Your task to perform on an android device: open chrome and create a bookmark for the current page Image 0: 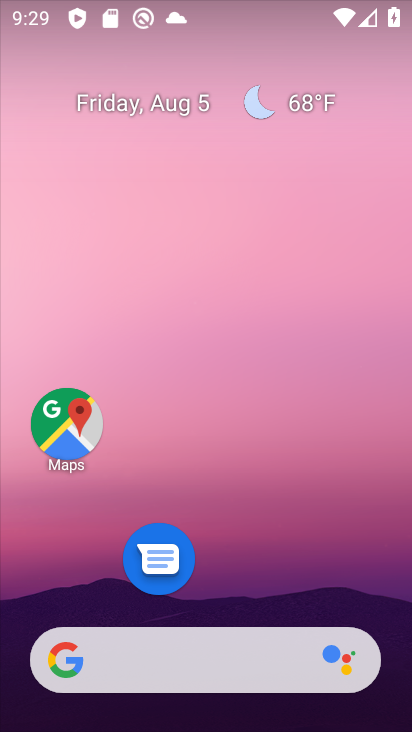
Step 0: drag from (283, 332) to (291, 83)
Your task to perform on an android device: open chrome and create a bookmark for the current page Image 1: 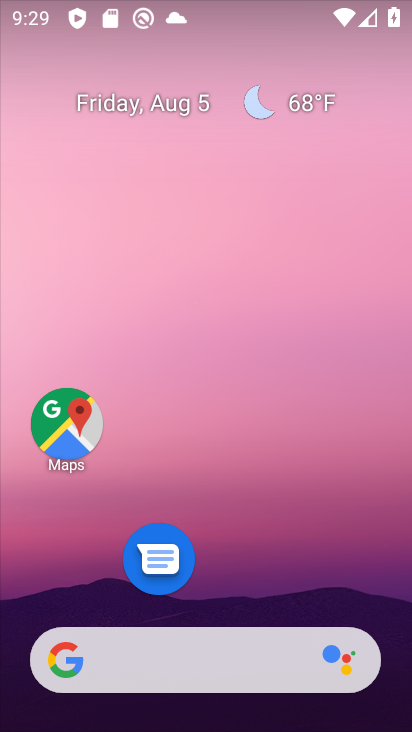
Step 1: drag from (227, 182) to (227, 105)
Your task to perform on an android device: open chrome and create a bookmark for the current page Image 2: 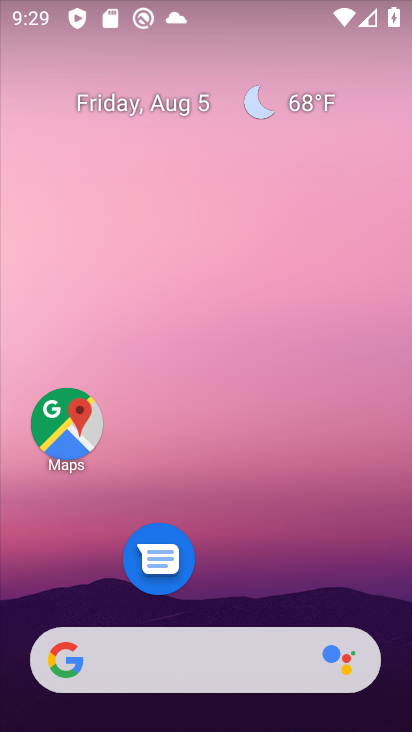
Step 2: drag from (240, 657) to (259, 128)
Your task to perform on an android device: open chrome and create a bookmark for the current page Image 3: 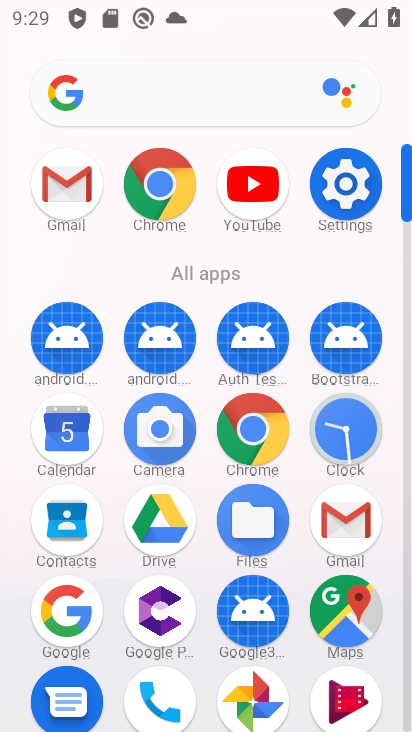
Step 3: click (159, 196)
Your task to perform on an android device: open chrome and create a bookmark for the current page Image 4: 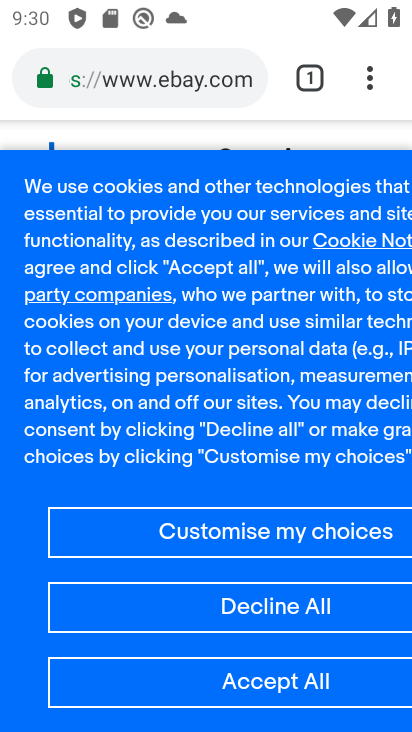
Step 4: click (366, 93)
Your task to perform on an android device: open chrome and create a bookmark for the current page Image 5: 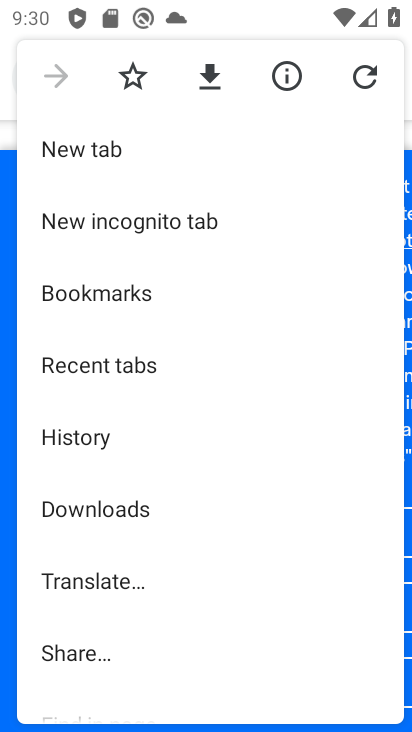
Step 5: click (140, 83)
Your task to perform on an android device: open chrome and create a bookmark for the current page Image 6: 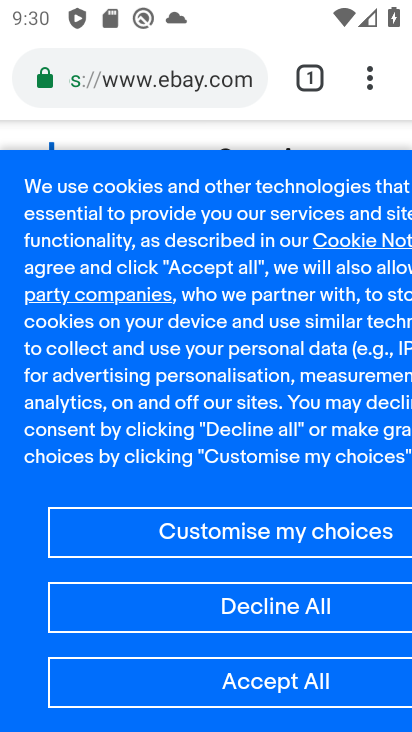
Step 6: task complete